Your task to perform on an android device: make emails show in primary in the gmail app Image 0: 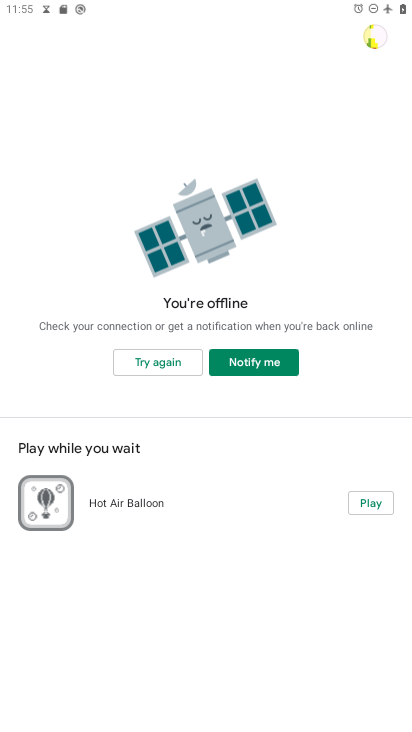
Step 0: press back button
Your task to perform on an android device: make emails show in primary in the gmail app Image 1: 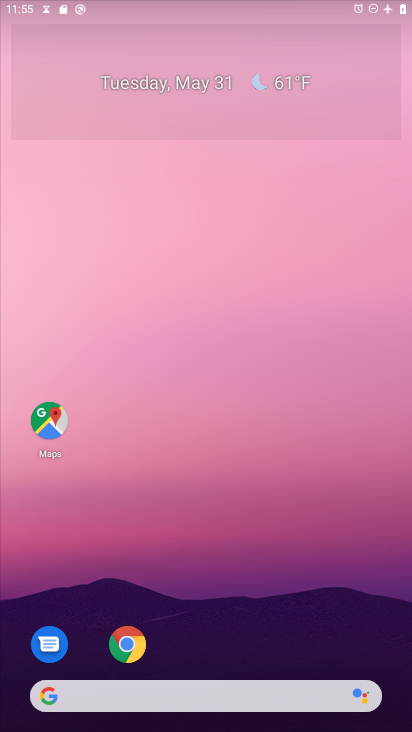
Step 1: drag from (332, 607) to (327, 11)
Your task to perform on an android device: make emails show in primary in the gmail app Image 2: 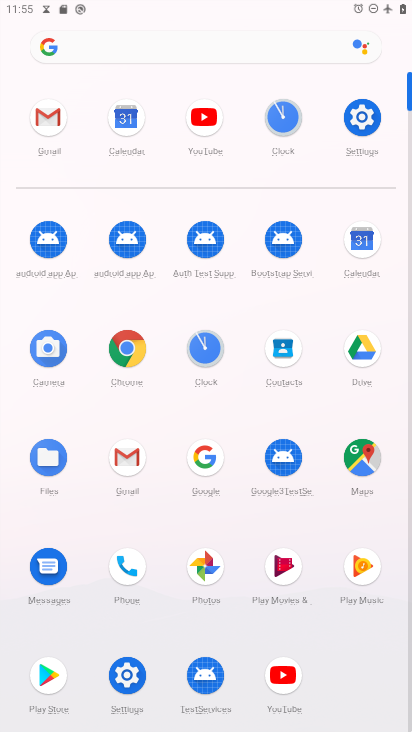
Step 2: click (44, 112)
Your task to perform on an android device: make emails show in primary in the gmail app Image 3: 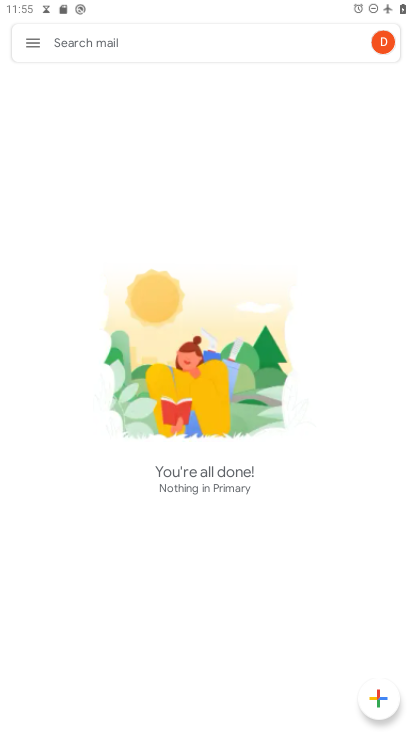
Step 3: click (36, 41)
Your task to perform on an android device: make emails show in primary in the gmail app Image 4: 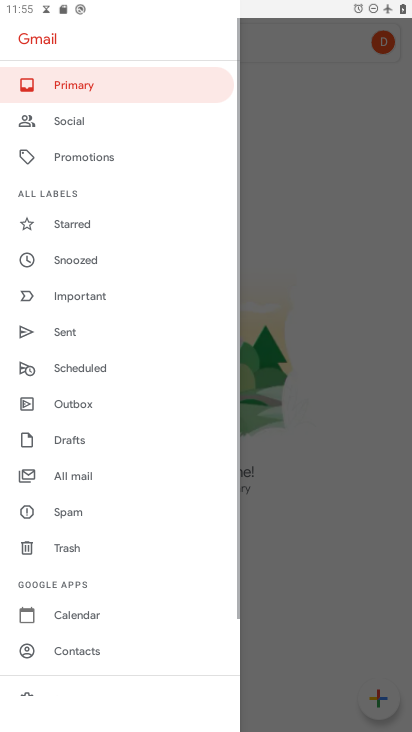
Step 4: drag from (145, 622) to (141, 125)
Your task to perform on an android device: make emails show in primary in the gmail app Image 5: 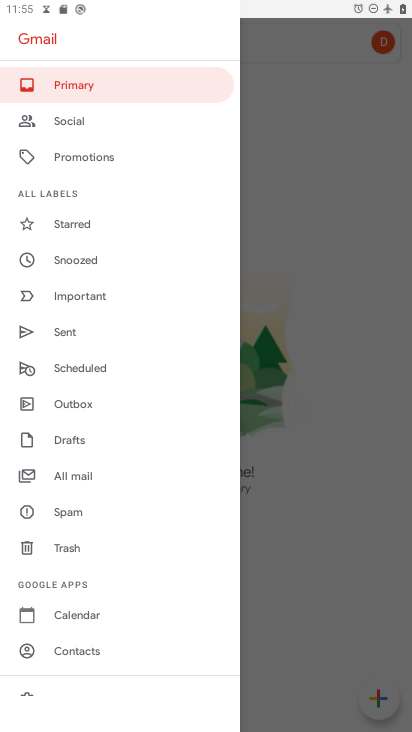
Step 5: drag from (78, 593) to (111, 94)
Your task to perform on an android device: make emails show in primary in the gmail app Image 6: 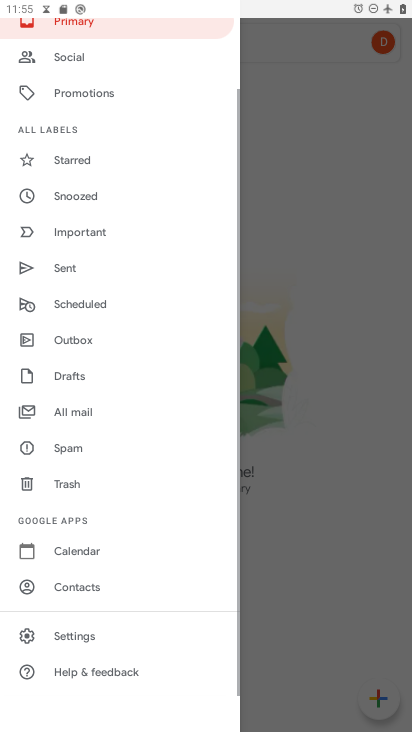
Step 6: click (74, 626)
Your task to perform on an android device: make emails show in primary in the gmail app Image 7: 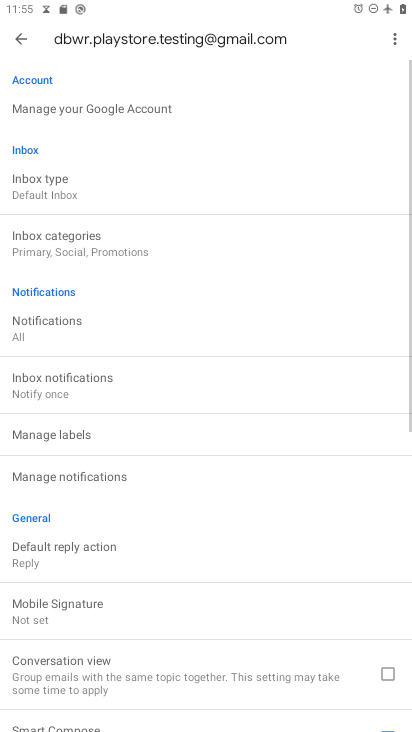
Step 7: click (85, 251)
Your task to perform on an android device: make emails show in primary in the gmail app Image 8: 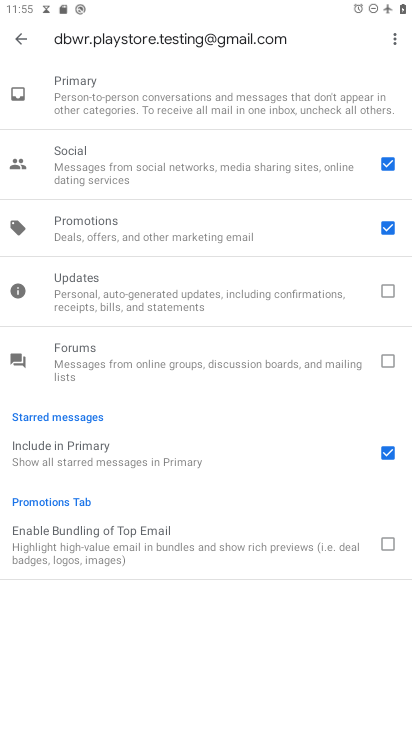
Step 8: task complete